Your task to perform on an android device: Open Google Chrome Image 0: 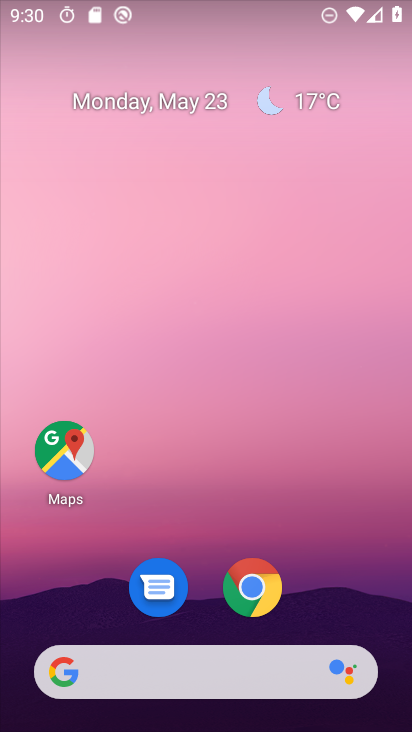
Step 0: click (263, 584)
Your task to perform on an android device: Open Google Chrome Image 1: 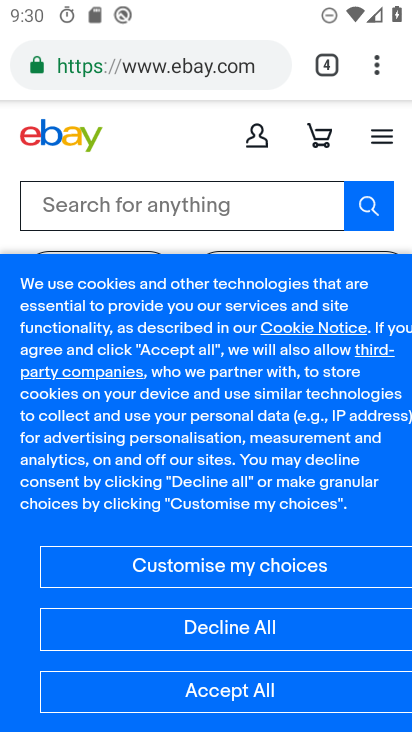
Step 1: task complete